Your task to perform on an android device: toggle notification dots Image 0: 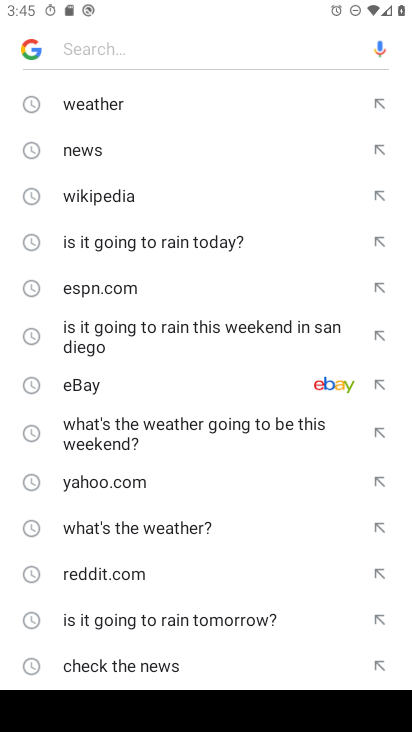
Step 0: press home button
Your task to perform on an android device: toggle notification dots Image 1: 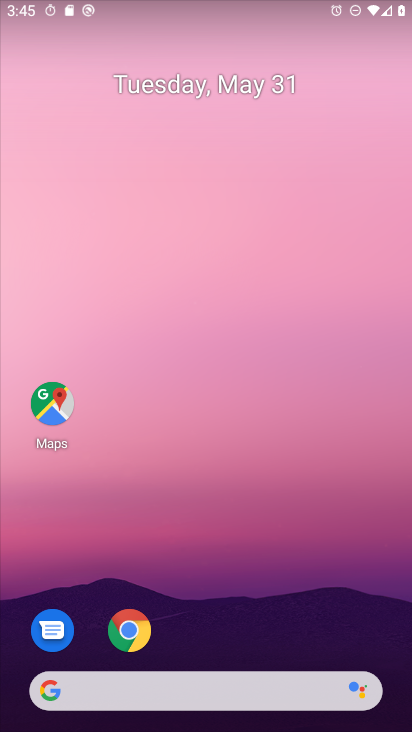
Step 1: drag from (159, 674) to (394, 352)
Your task to perform on an android device: toggle notification dots Image 2: 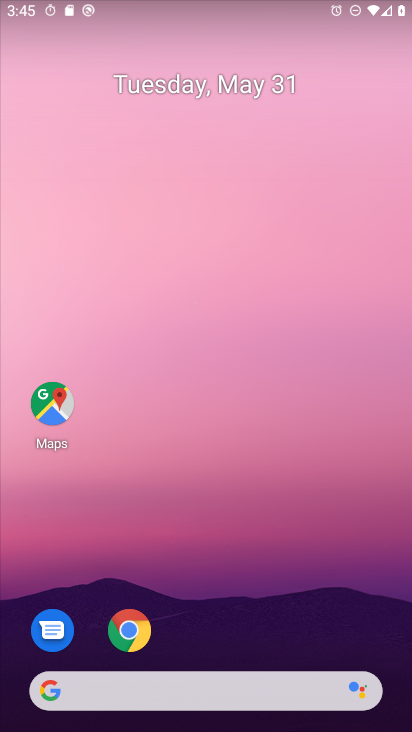
Step 2: click (280, 125)
Your task to perform on an android device: toggle notification dots Image 3: 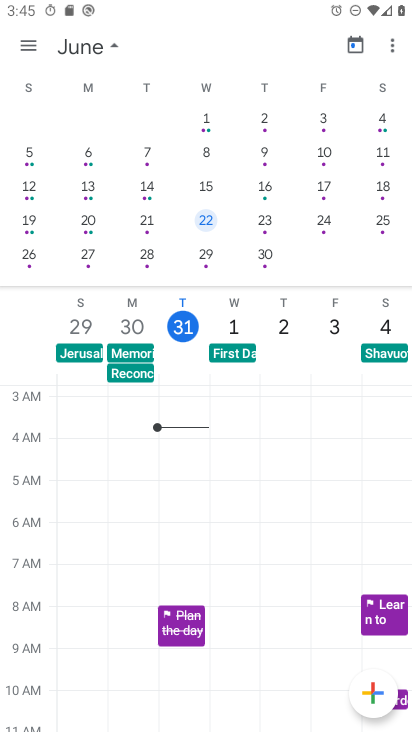
Step 3: press home button
Your task to perform on an android device: toggle notification dots Image 4: 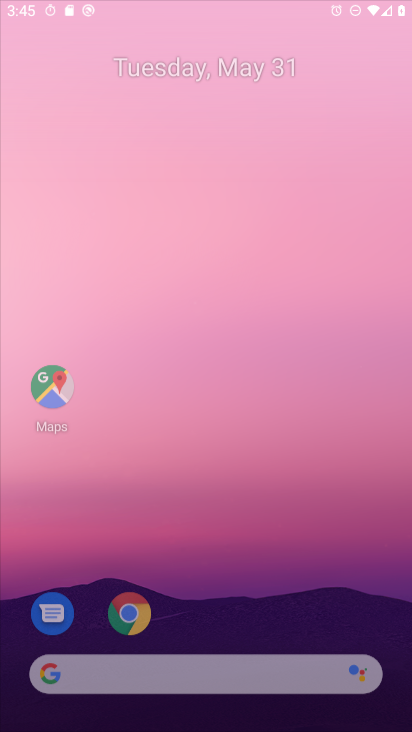
Step 4: drag from (208, 611) to (276, 10)
Your task to perform on an android device: toggle notification dots Image 5: 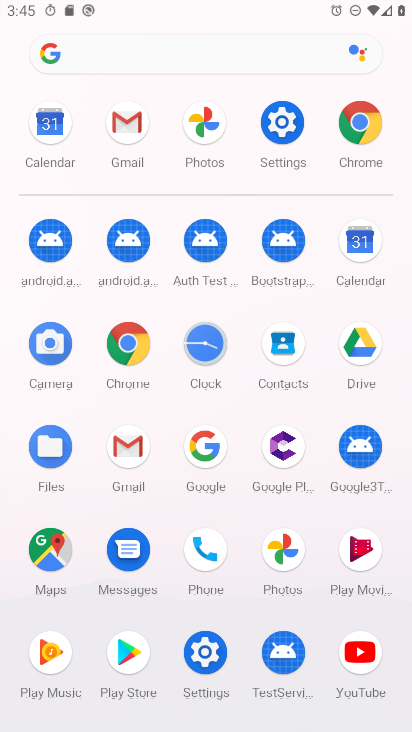
Step 5: click (281, 174)
Your task to perform on an android device: toggle notification dots Image 6: 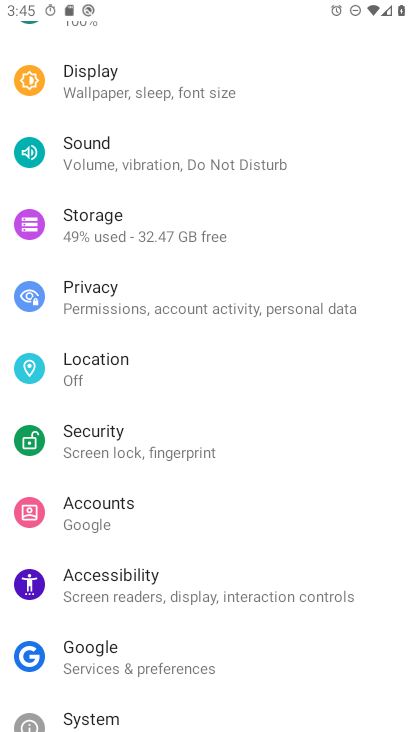
Step 6: drag from (194, 177) to (113, 682)
Your task to perform on an android device: toggle notification dots Image 7: 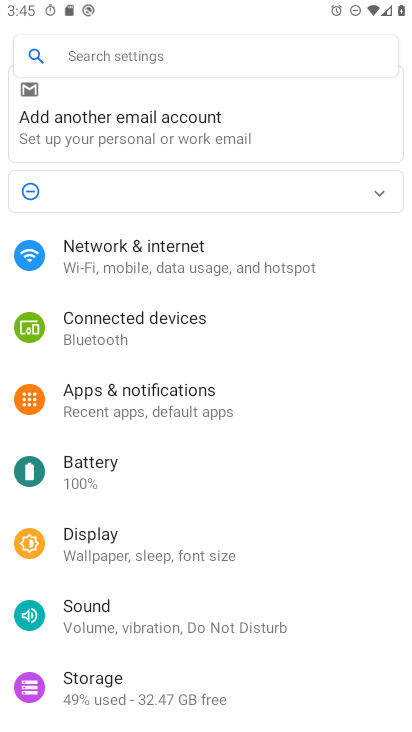
Step 7: click (172, 396)
Your task to perform on an android device: toggle notification dots Image 8: 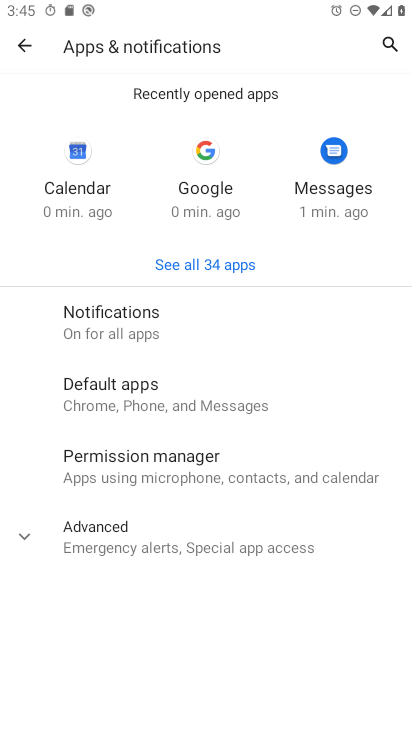
Step 8: click (240, 329)
Your task to perform on an android device: toggle notification dots Image 9: 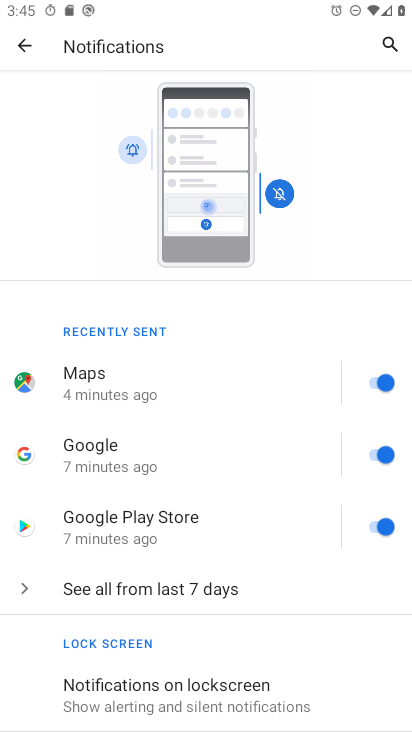
Step 9: drag from (216, 665) to (234, 171)
Your task to perform on an android device: toggle notification dots Image 10: 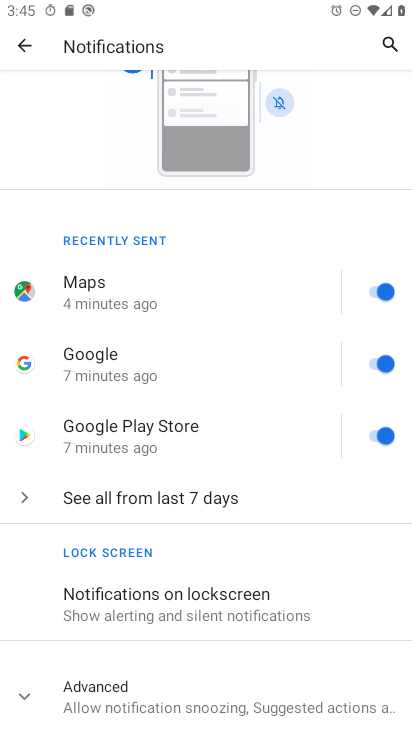
Step 10: click (204, 697)
Your task to perform on an android device: toggle notification dots Image 11: 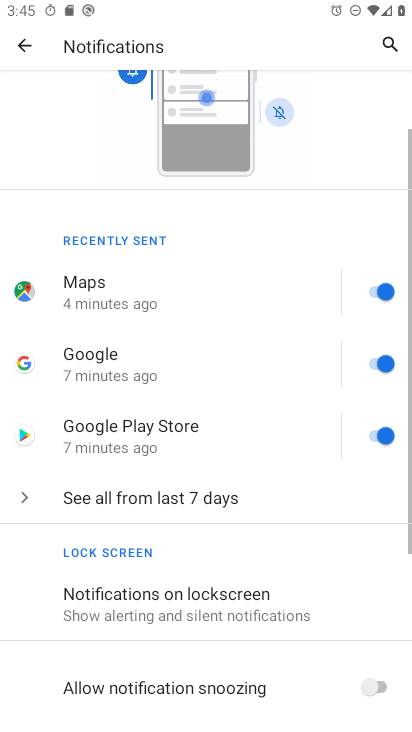
Step 11: drag from (214, 610) to (255, 166)
Your task to perform on an android device: toggle notification dots Image 12: 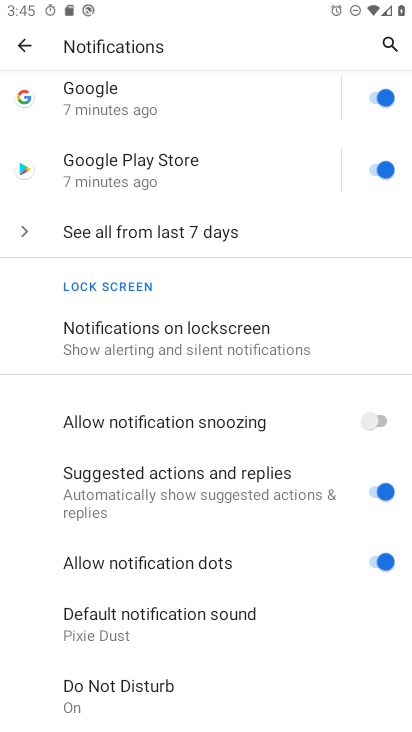
Step 12: click (386, 560)
Your task to perform on an android device: toggle notification dots Image 13: 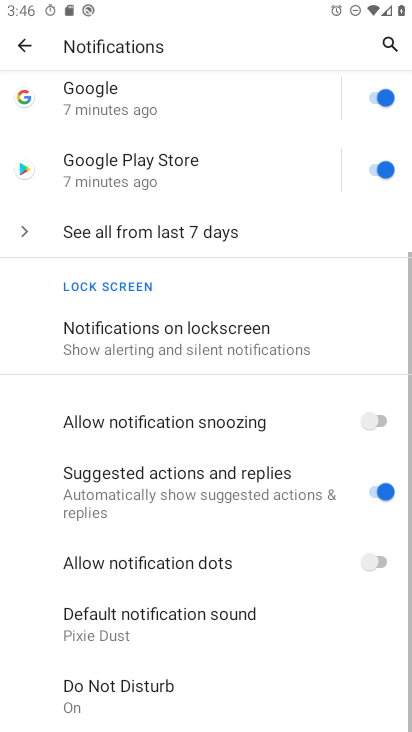
Step 13: task complete